Your task to perform on an android device: turn off improve location accuracy Image 0: 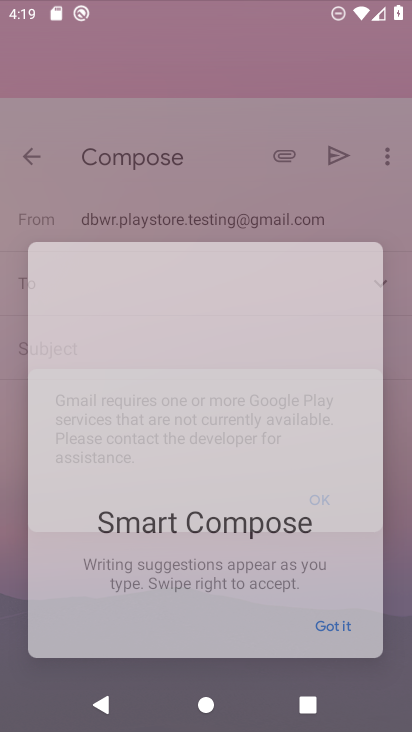
Step 0: click (216, 636)
Your task to perform on an android device: turn off improve location accuracy Image 1: 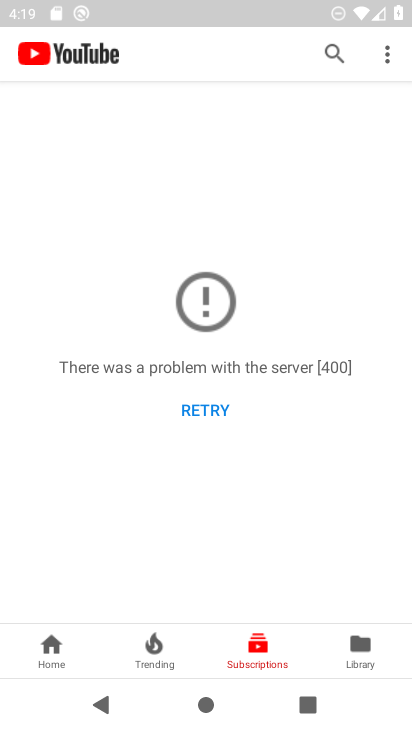
Step 1: press home button
Your task to perform on an android device: turn off improve location accuracy Image 2: 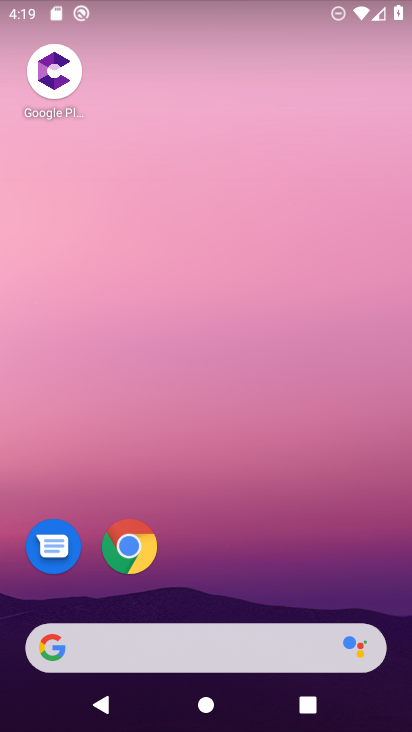
Step 2: drag from (278, 602) to (223, 4)
Your task to perform on an android device: turn off improve location accuracy Image 3: 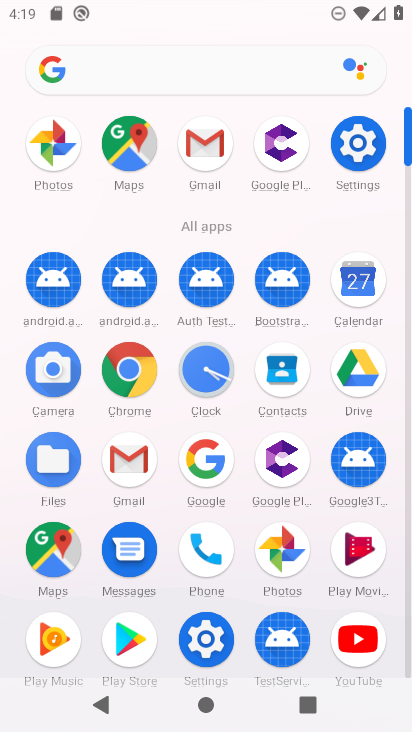
Step 3: click (358, 155)
Your task to perform on an android device: turn off improve location accuracy Image 4: 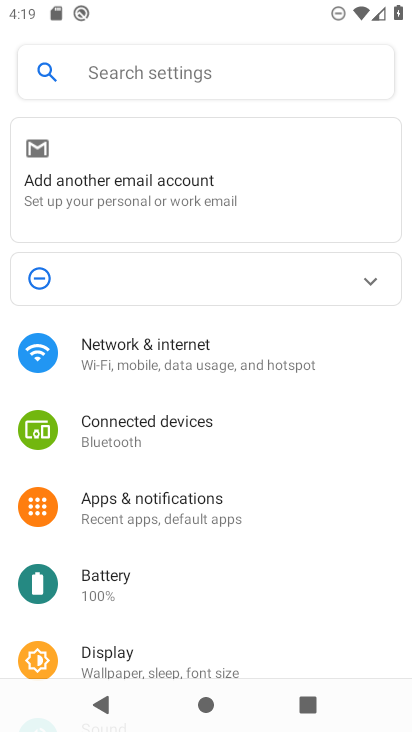
Step 4: drag from (200, 592) to (235, 212)
Your task to perform on an android device: turn off improve location accuracy Image 5: 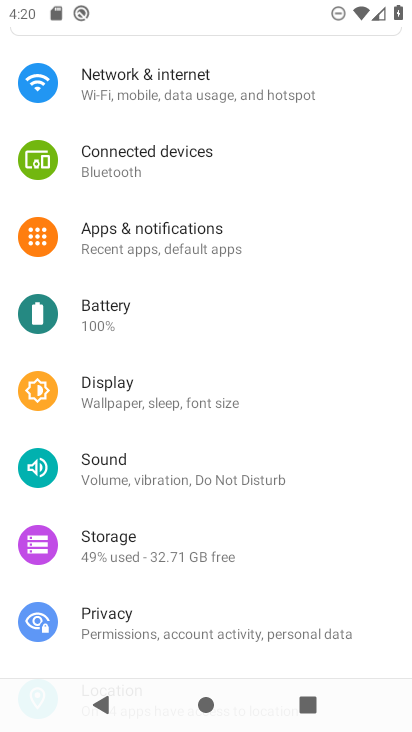
Step 5: drag from (209, 565) to (292, 32)
Your task to perform on an android device: turn off improve location accuracy Image 6: 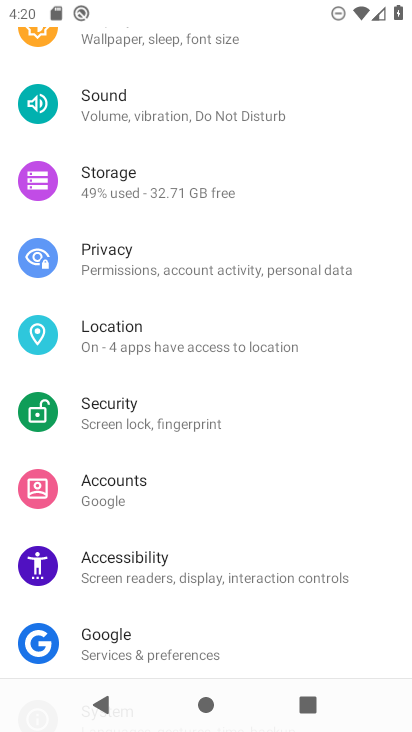
Step 6: click (177, 354)
Your task to perform on an android device: turn off improve location accuracy Image 7: 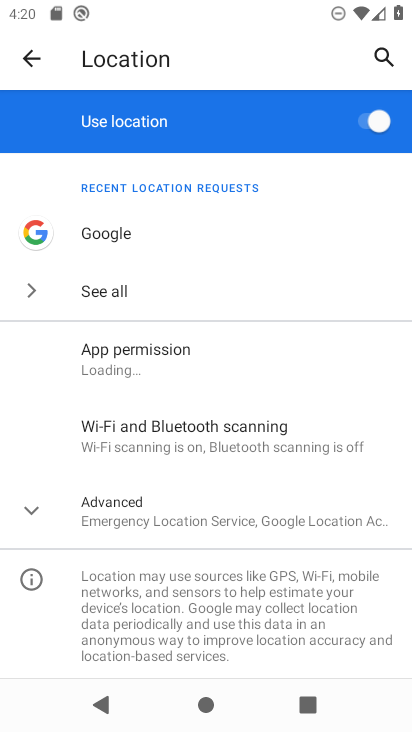
Step 7: click (239, 494)
Your task to perform on an android device: turn off improve location accuracy Image 8: 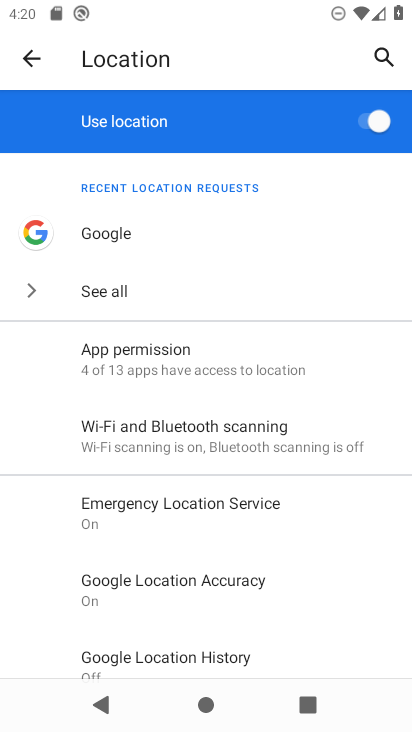
Step 8: click (275, 598)
Your task to perform on an android device: turn off improve location accuracy Image 9: 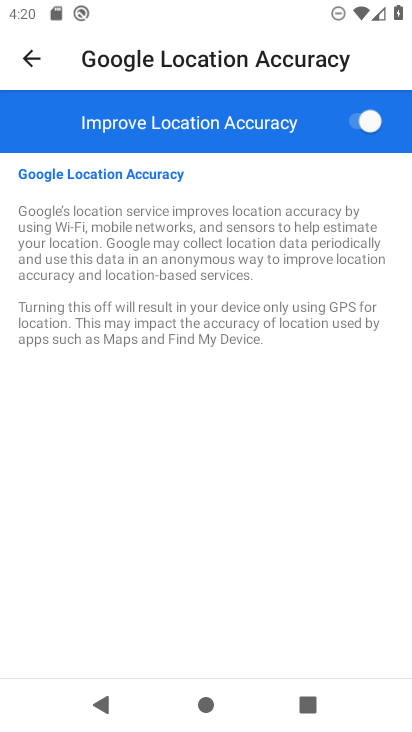
Step 9: click (362, 134)
Your task to perform on an android device: turn off improve location accuracy Image 10: 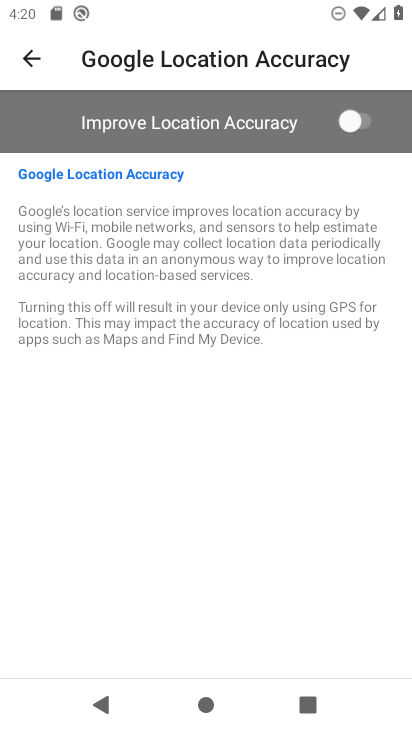
Step 10: task complete